Your task to perform on an android device: Open Google Maps and go to "Timeline" Image 0: 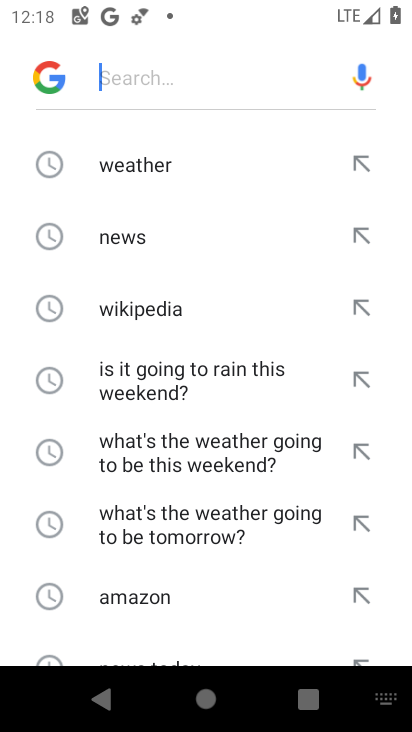
Step 0: press home button
Your task to perform on an android device: Open Google Maps and go to "Timeline" Image 1: 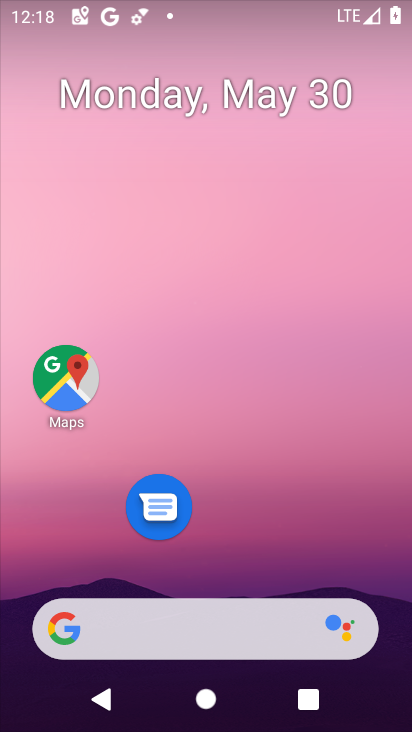
Step 1: drag from (273, 547) to (329, 103)
Your task to perform on an android device: Open Google Maps and go to "Timeline" Image 2: 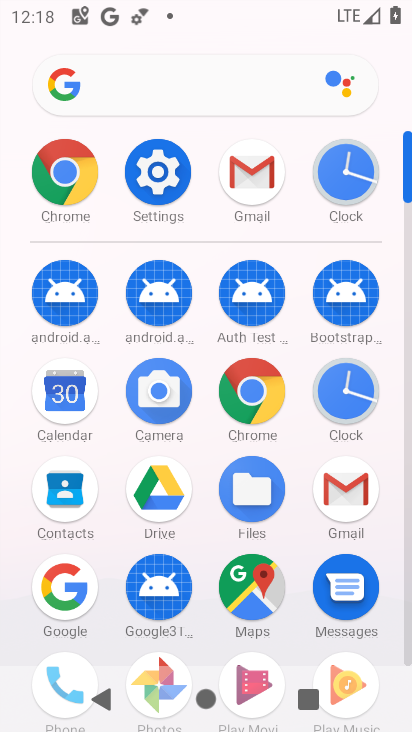
Step 2: click (248, 570)
Your task to perform on an android device: Open Google Maps and go to "Timeline" Image 3: 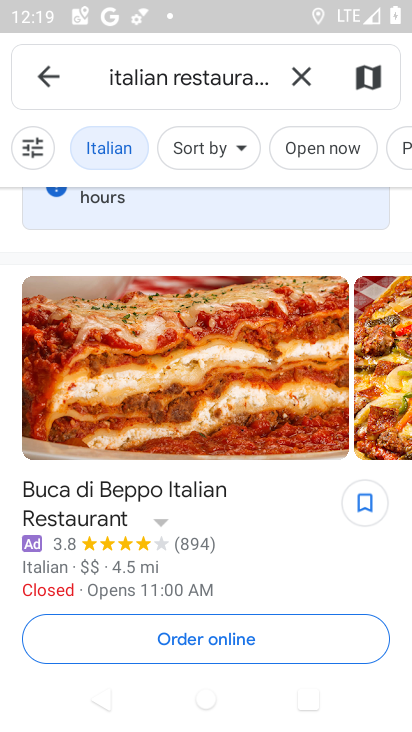
Step 3: click (42, 74)
Your task to perform on an android device: Open Google Maps and go to "Timeline" Image 4: 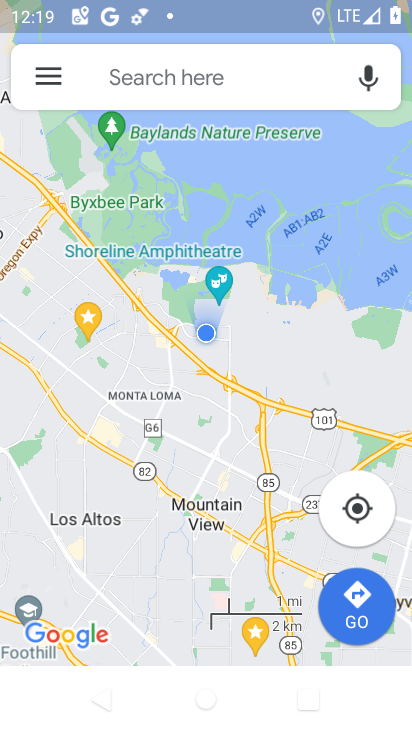
Step 4: click (45, 76)
Your task to perform on an android device: Open Google Maps and go to "Timeline" Image 5: 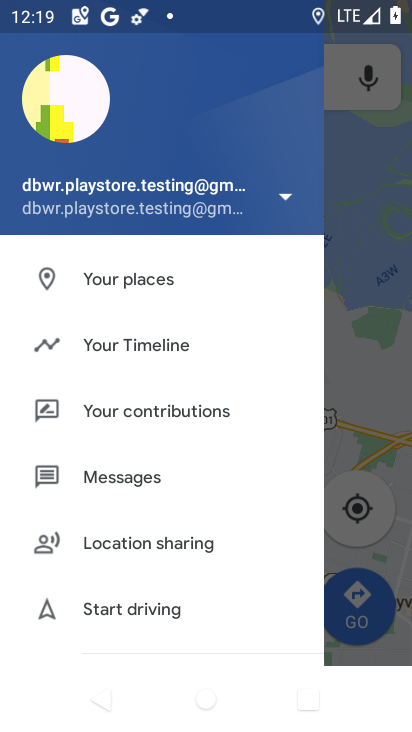
Step 5: click (108, 347)
Your task to perform on an android device: Open Google Maps and go to "Timeline" Image 6: 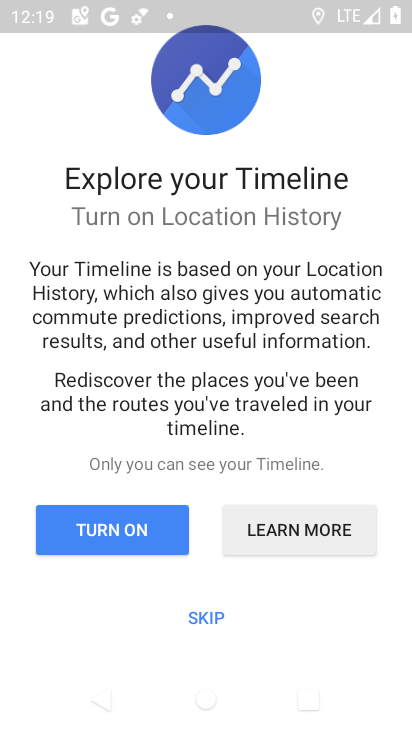
Step 6: click (125, 520)
Your task to perform on an android device: Open Google Maps and go to "Timeline" Image 7: 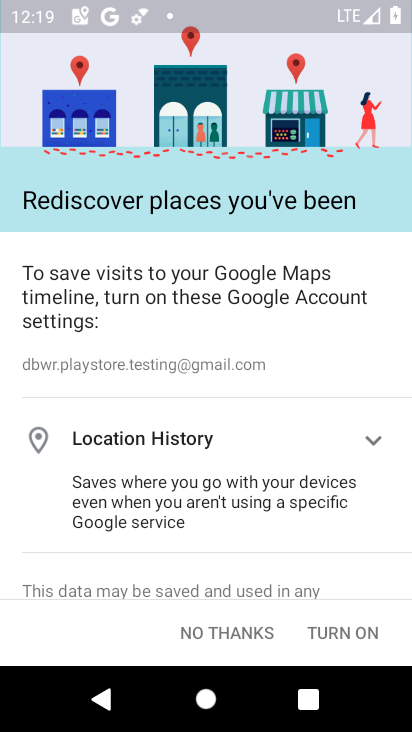
Step 7: click (232, 628)
Your task to perform on an android device: Open Google Maps and go to "Timeline" Image 8: 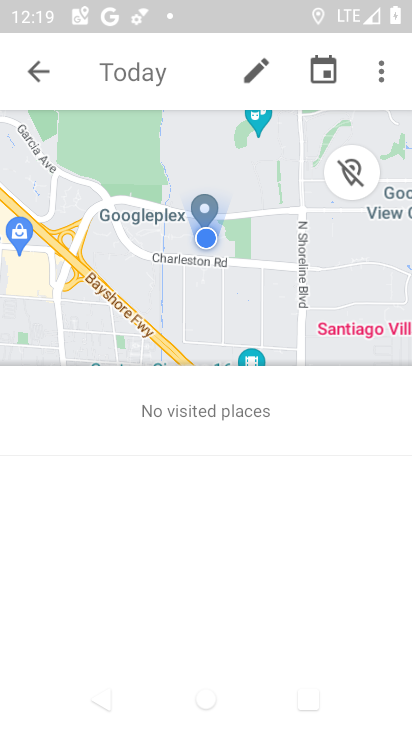
Step 8: task complete